Your task to perform on an android device: search for starred emails in the gmail app Image 0: 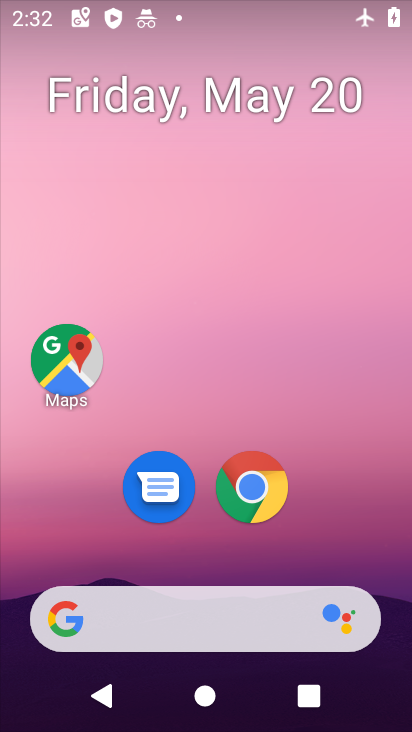
Step 0: drag from (368, 507) to (328, 26)
Your task to perform on an android device: search for starred emails in the gmail app Image 1: 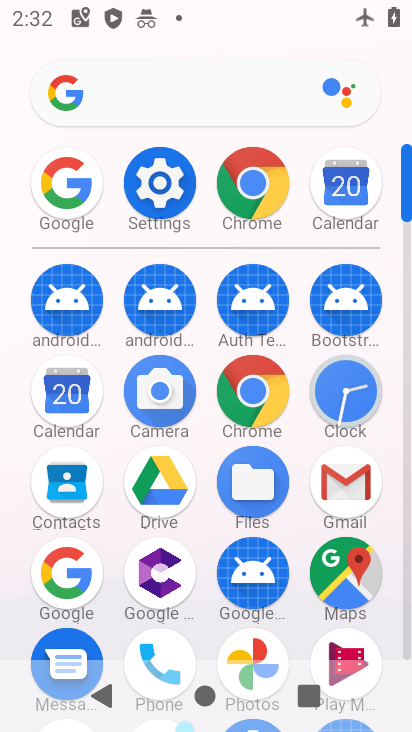
Step 1: click (351, 486)
Your task to perform on an android device: search for starred emails in the gmail app Image 2: 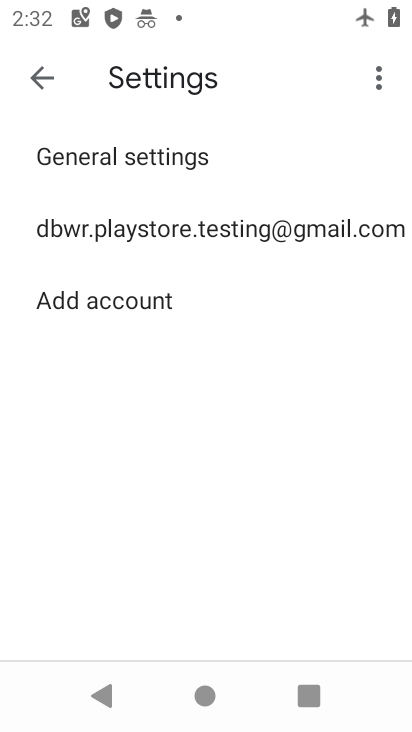
Step 2: click (37, 84)
Your task to perform on an android device: search for starred emails in the gmail app Image 3: 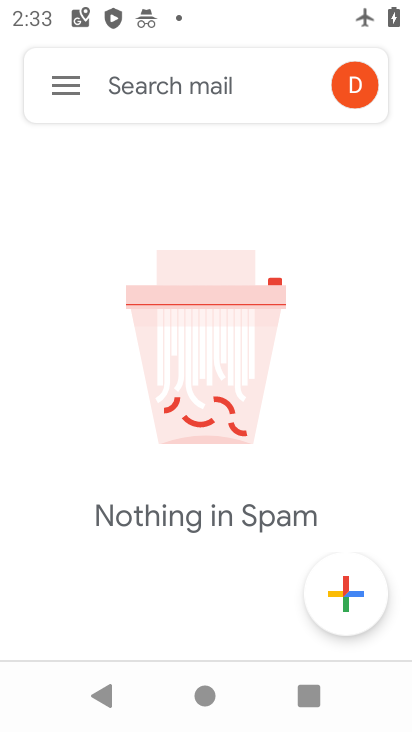
Step 3: click (64, 117)
Your task to perform on an android device: search for starred emails in the gmail app Image 4: 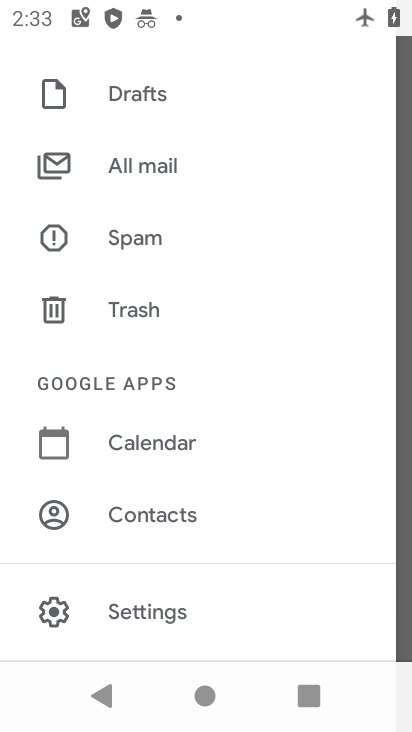
Step 4: drag from (89, 196) to (159, 562)
Your task to perform on an android device: search for starred emails in the gmail app Image 5: 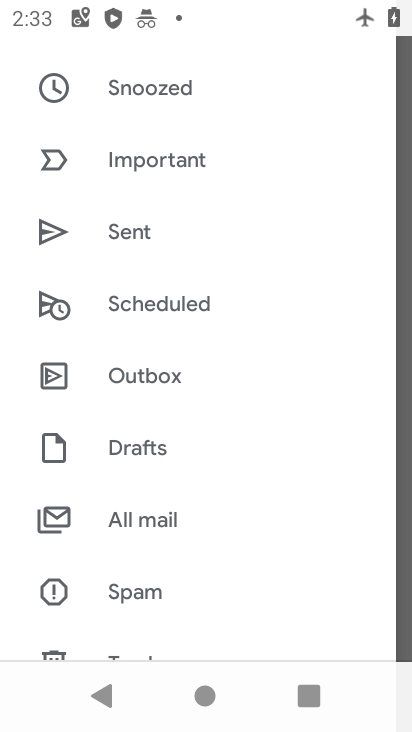
Step 5: click (153, 525)
Your task to perform on an android device: search for starred emails in the gmail app Image 6: 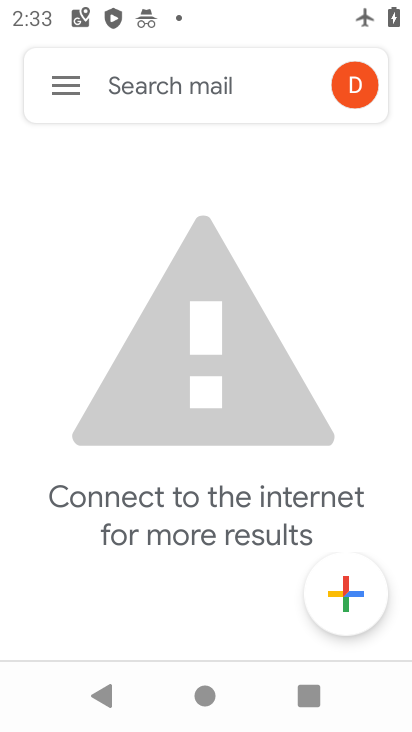
Step 6: task complete